Your task to perform on an android device: Open Maps and search for coffee Image 0: 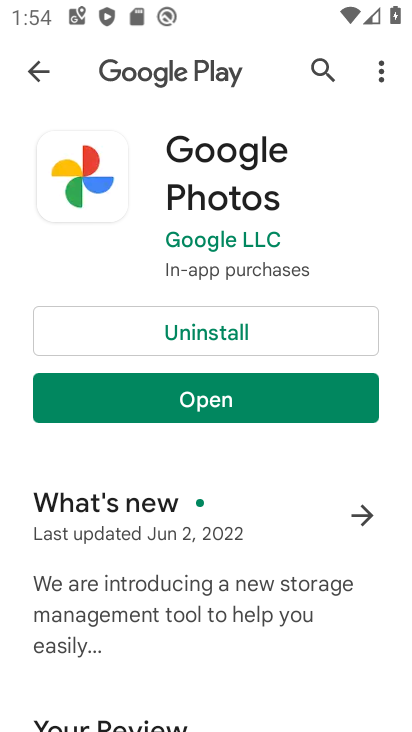
Step 0: press home button
Your task to perform on an android device: Open Maps and search for coffee Image 1: 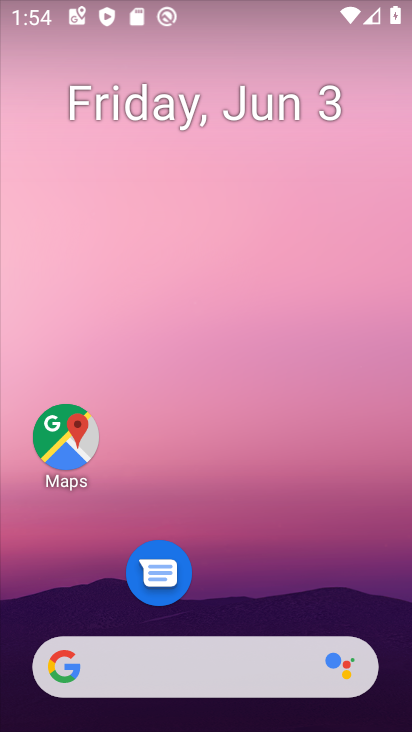
Step 1: drag from (347, 671) to (343, 139)
Your task to perform on an android device: Open Maps and search for coffee Image 2: 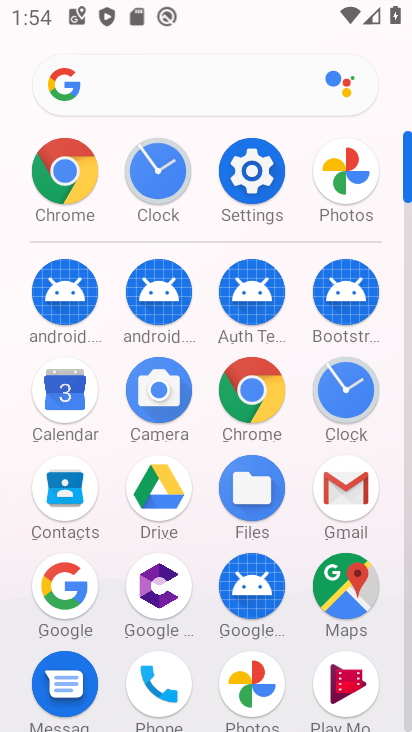
Step 2: click (345, 597)
Your task to perform on an android device: Open Maps and search for coffee Image 3: 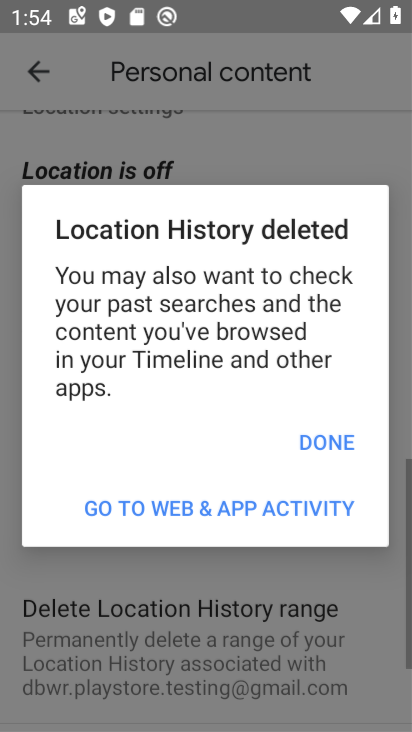
Step 3: click (331, 443)
Your task to perform on an android device: Open Maps and search for coffee Image 4: 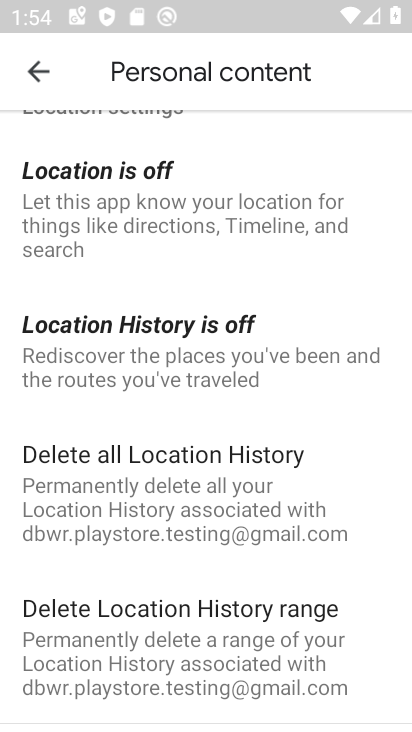
Step 4: press back button
Your task to perform on an android device: Open Maps and search for coffee Image 5: 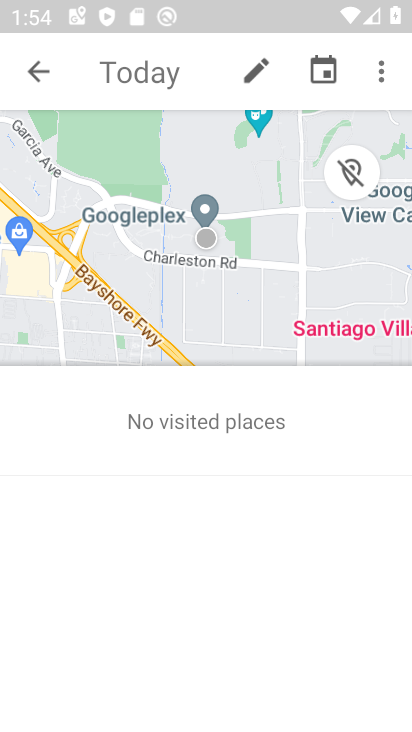
Step 5: press back button
Your task to perform on an android device: Open Maps and search for coffee Image 6: 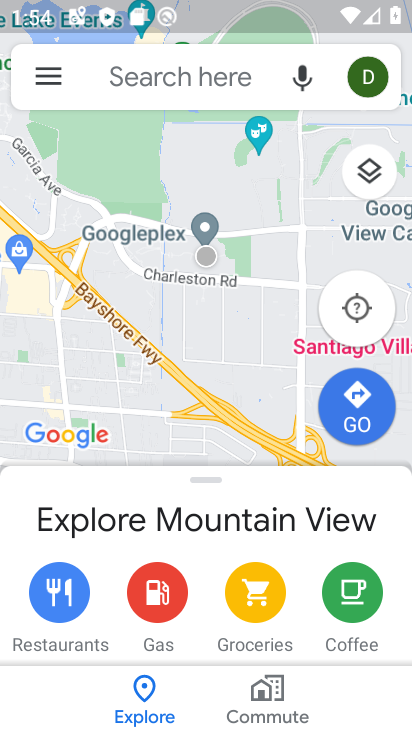
Step 6: click (249, 88)
Your task to perform on an android device: Open Maps and search for coffee Image 7: 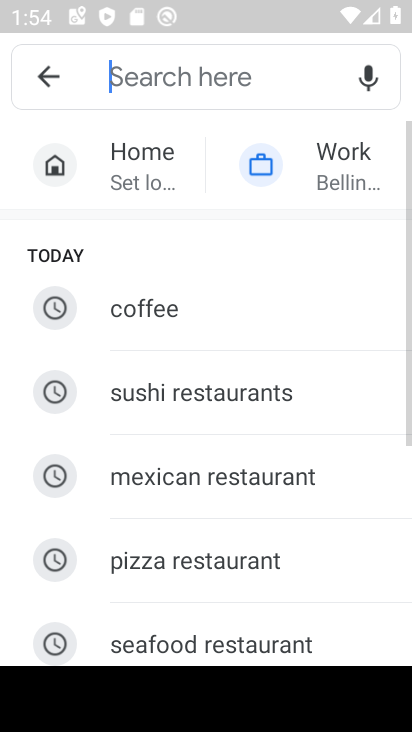
Step 7: click (239, 313)
Your task to perform on an android device: Open Maps and search for coffee Image 8: 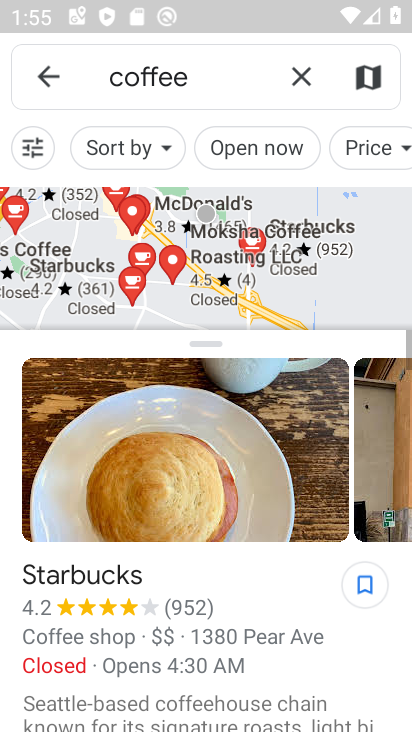
Step 8: task complete